Your task to perform on an android device: open chrome and create a bookmark for the current page Image 0: 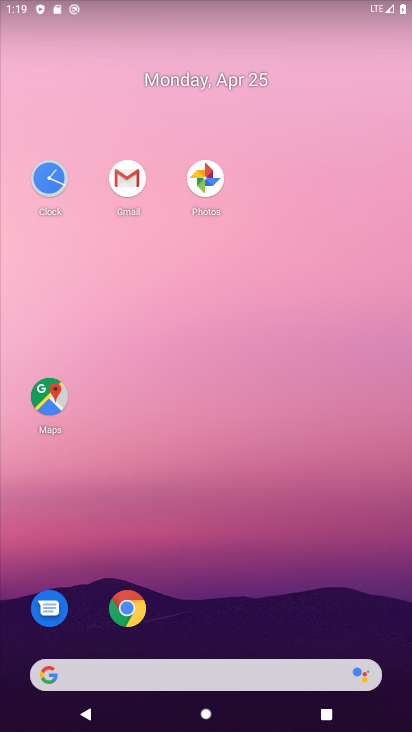
Step 0: click (121, 599)
Your task to perform on an android device: open chrome and create a bookmark for the current page Image 1: 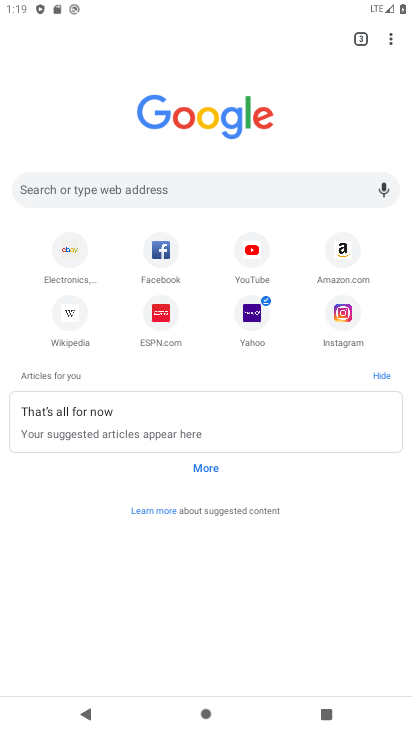
Step 1: task complete